Your task to perform on an android device: Search for hotels in Seattle Image 0: 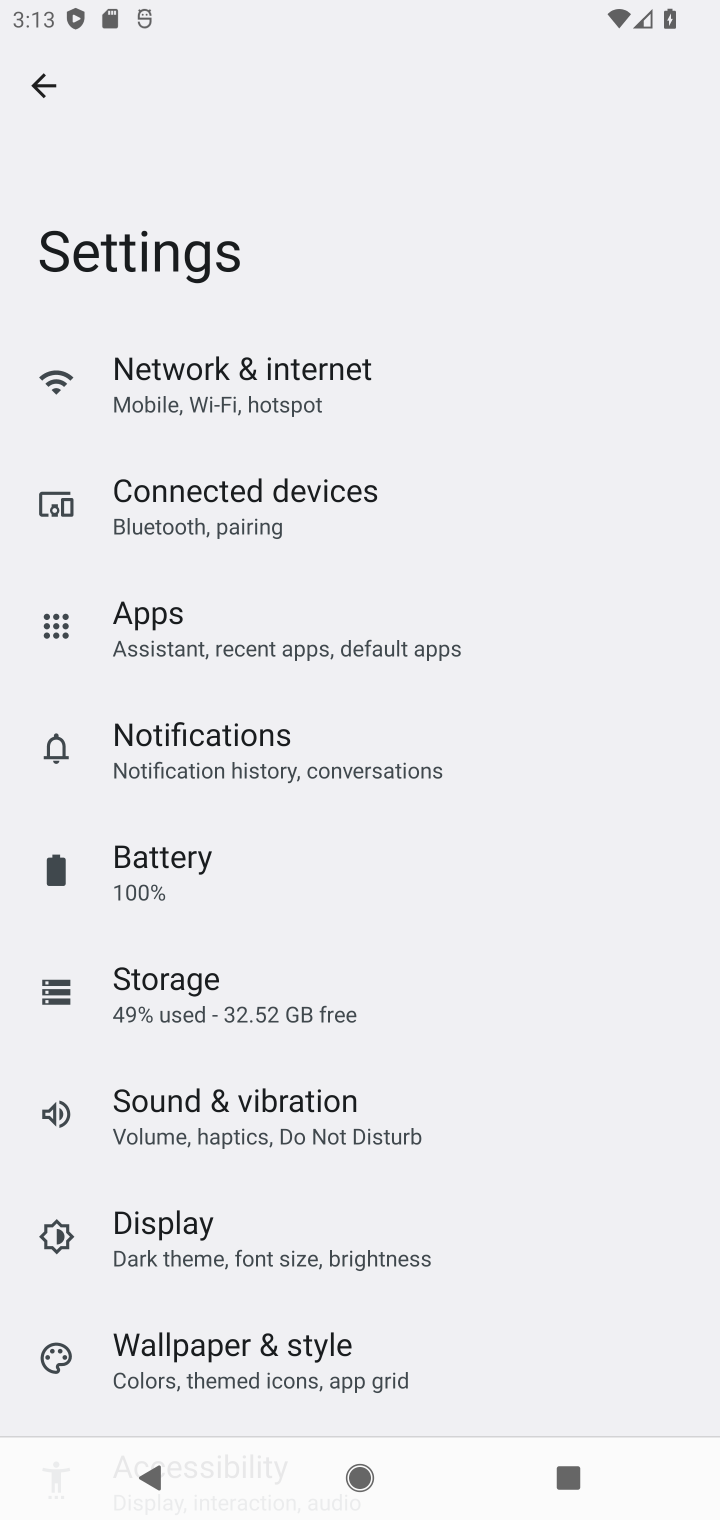
Step 0: press home button
Your task to perform on an android device: Search for hotels in Seattle Image 1: 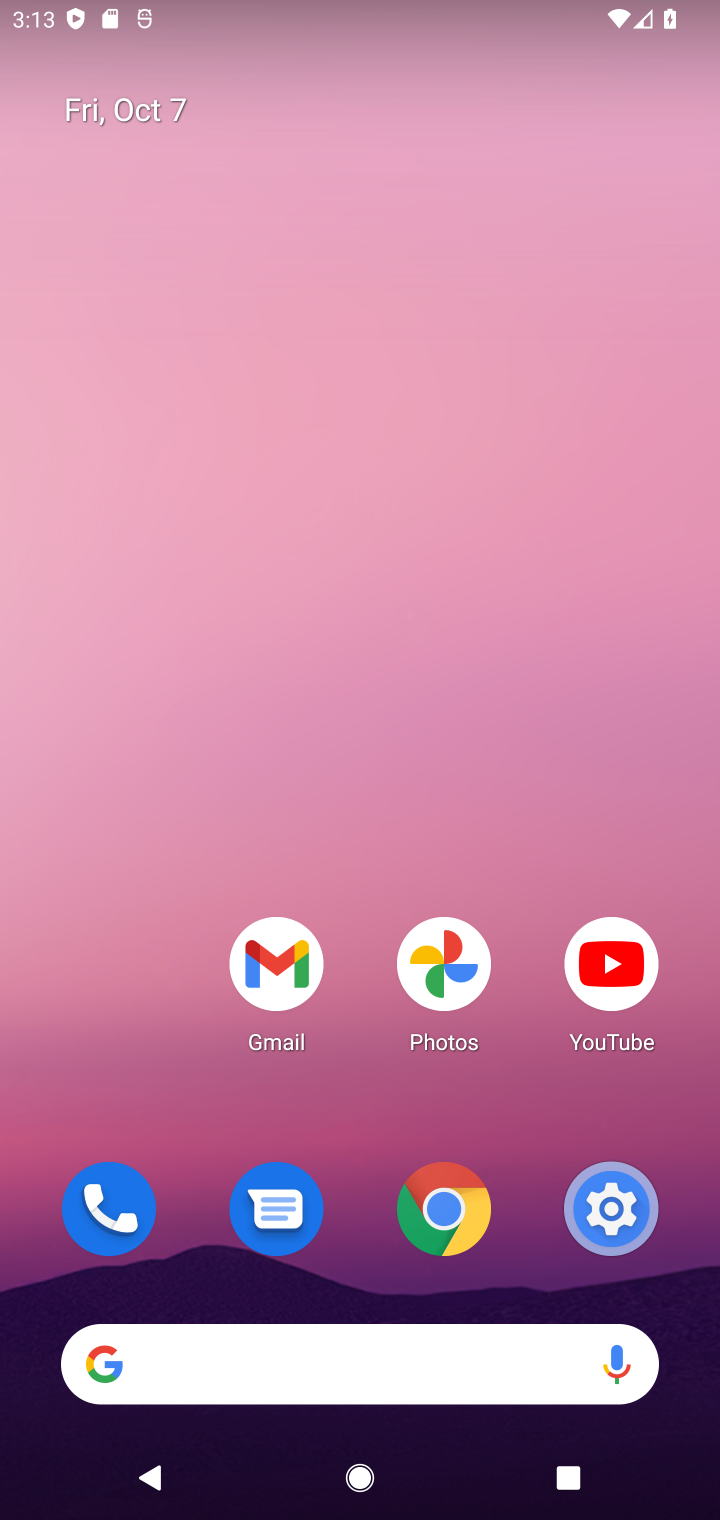
Step 1: click (473, 1362)
Your task to perform on an android device: Search for hotels in Seattle Image 2: 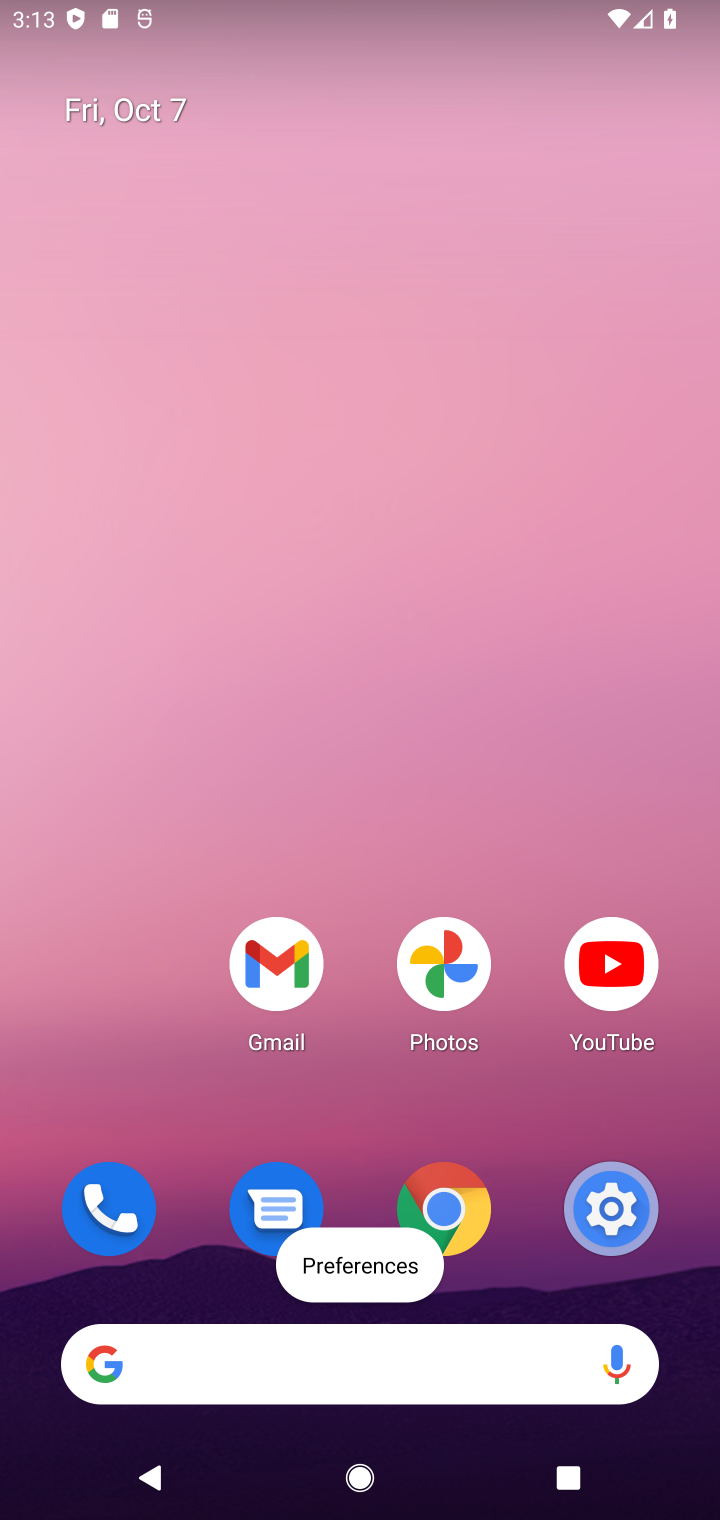
Step 2: click (265, 1343)
Your task to perform on an android device: Search for hotels in Seattle Image 3: 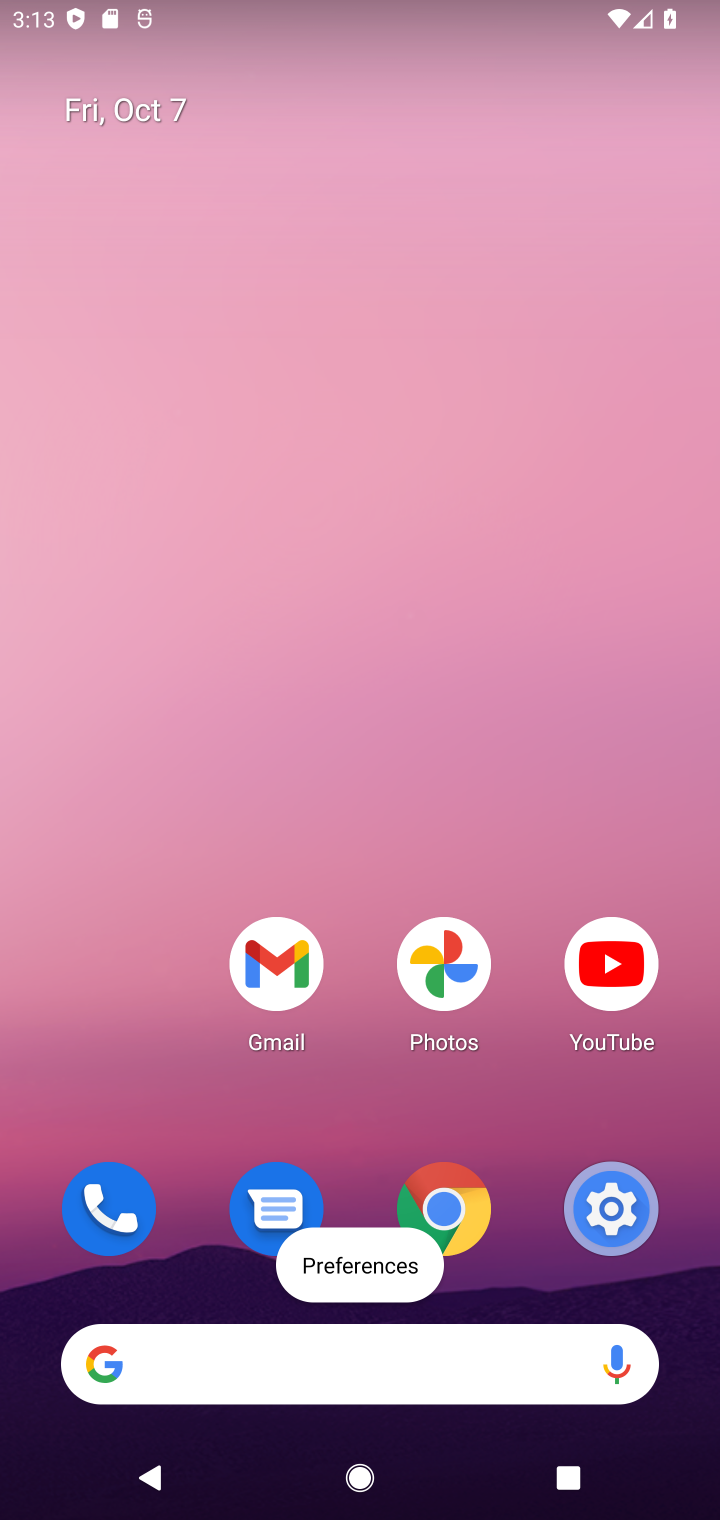
Step 3: click (201, 1372)
Your task to perform on an android device: Search for hotels in Seattle Image 4: 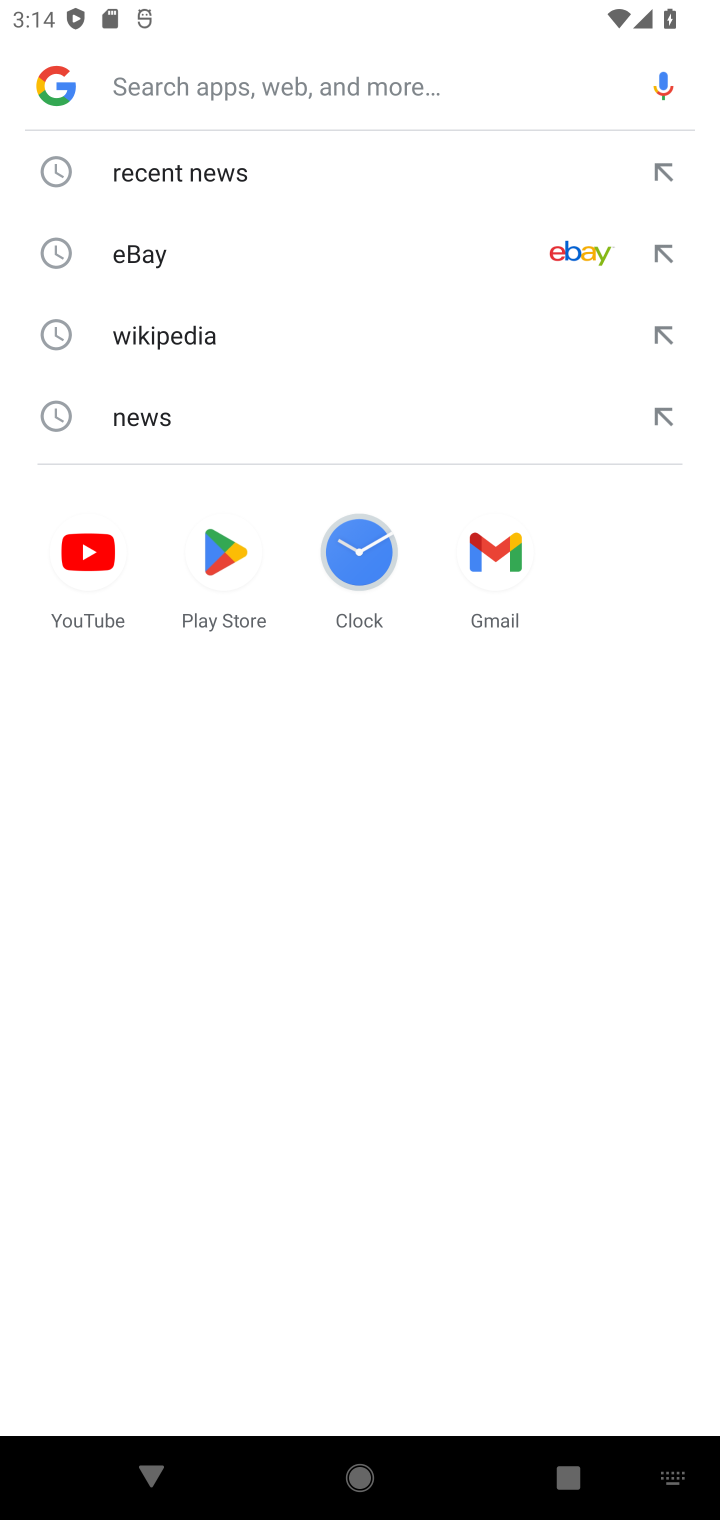
Step 4: type "hotels in seattle"
Your task to perform on an android device: Search for hotels in Seattle Image 5: 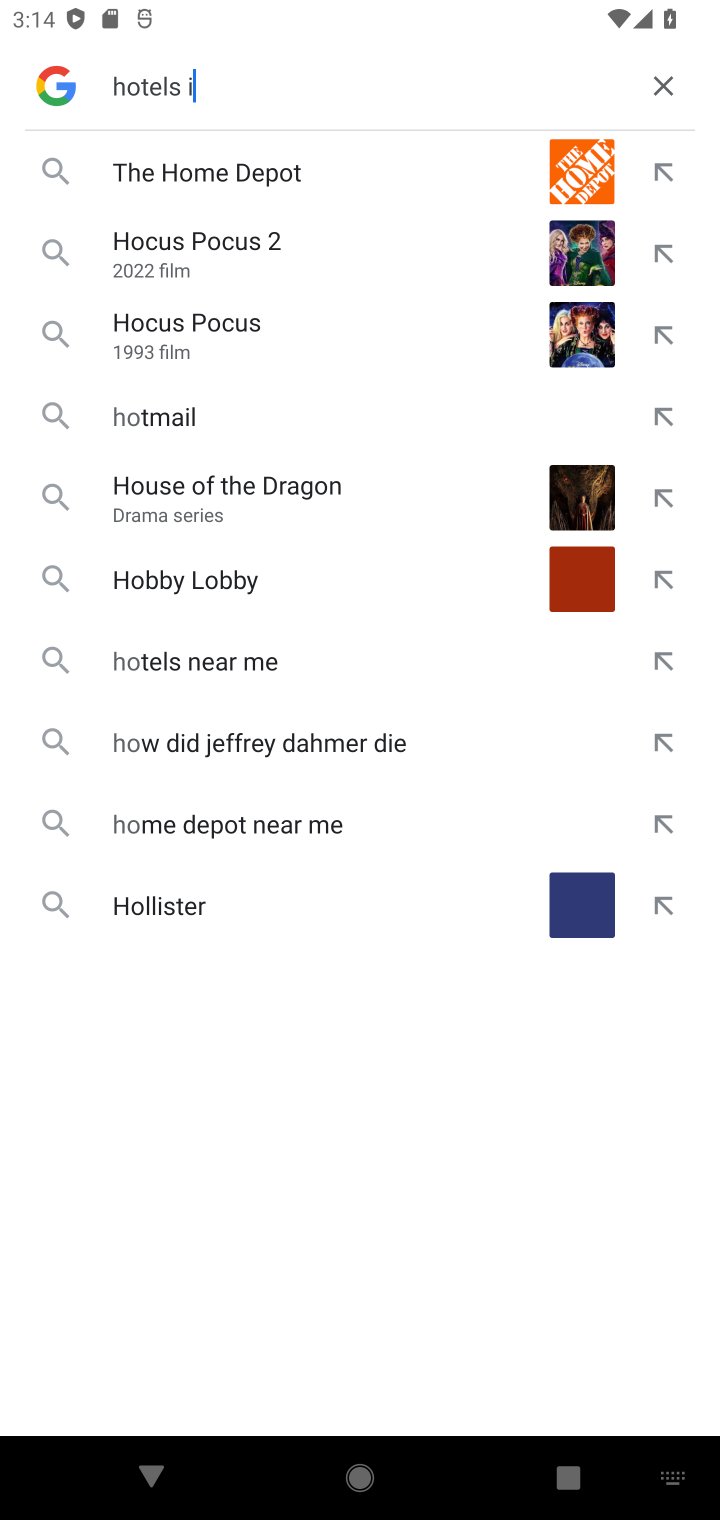
Step 5: press enter
Your task to perform on an android device: Search for hotels in Seattle Image 6: 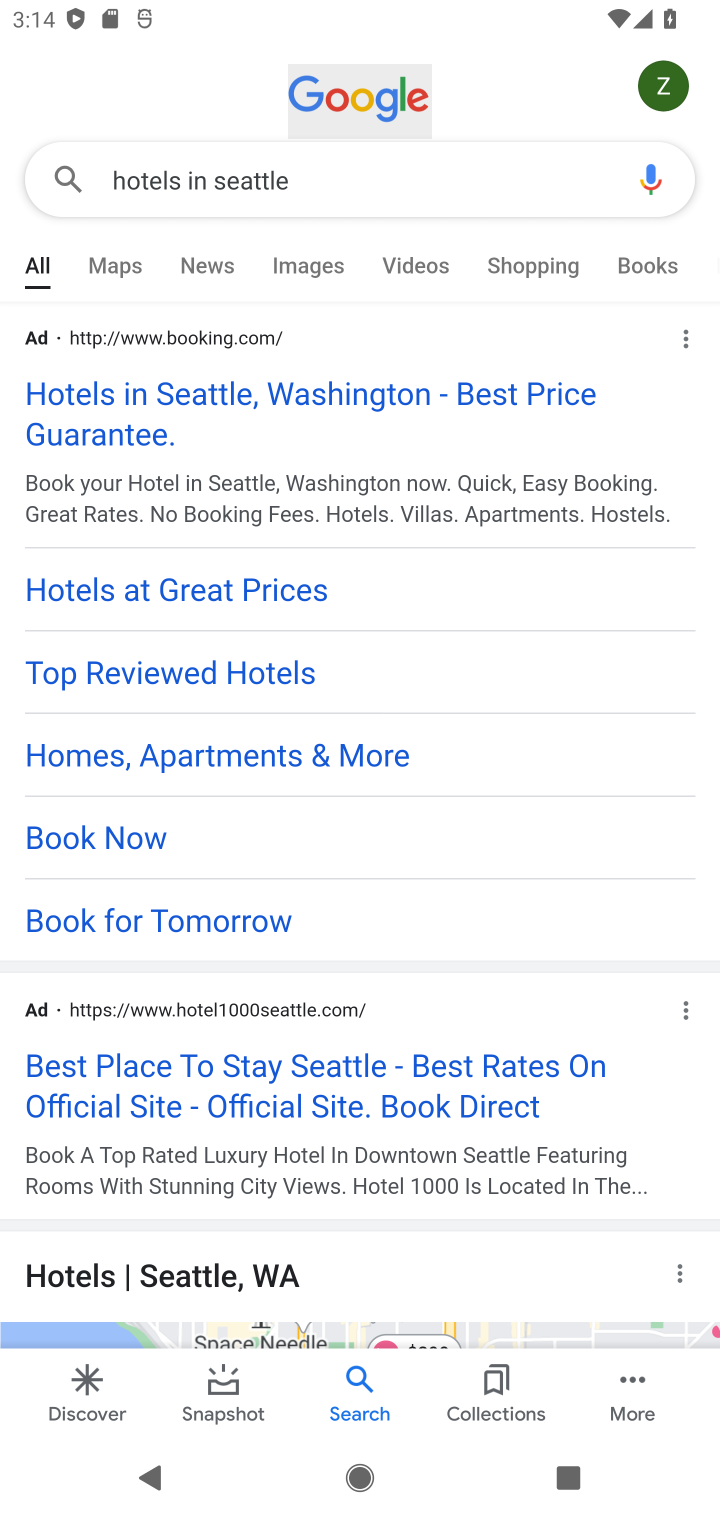
Step 6: drag from (453, 1207) to (463, 885)
Your task to perform on an android device: Search for hotels in Seattle Image 7: 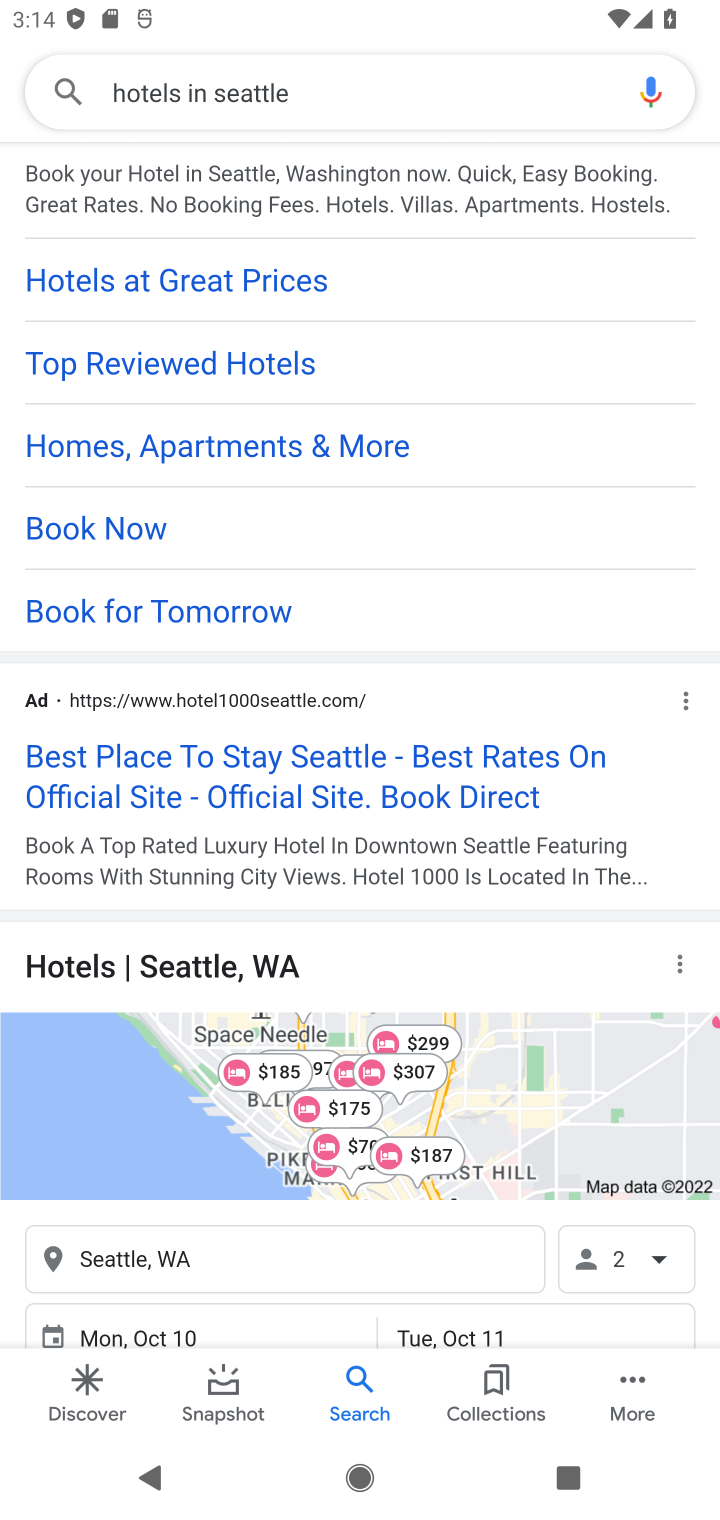
Step 7: click (418, 1036)
Your task to perform on an android device: Search for hotels in Seattle Image 8: 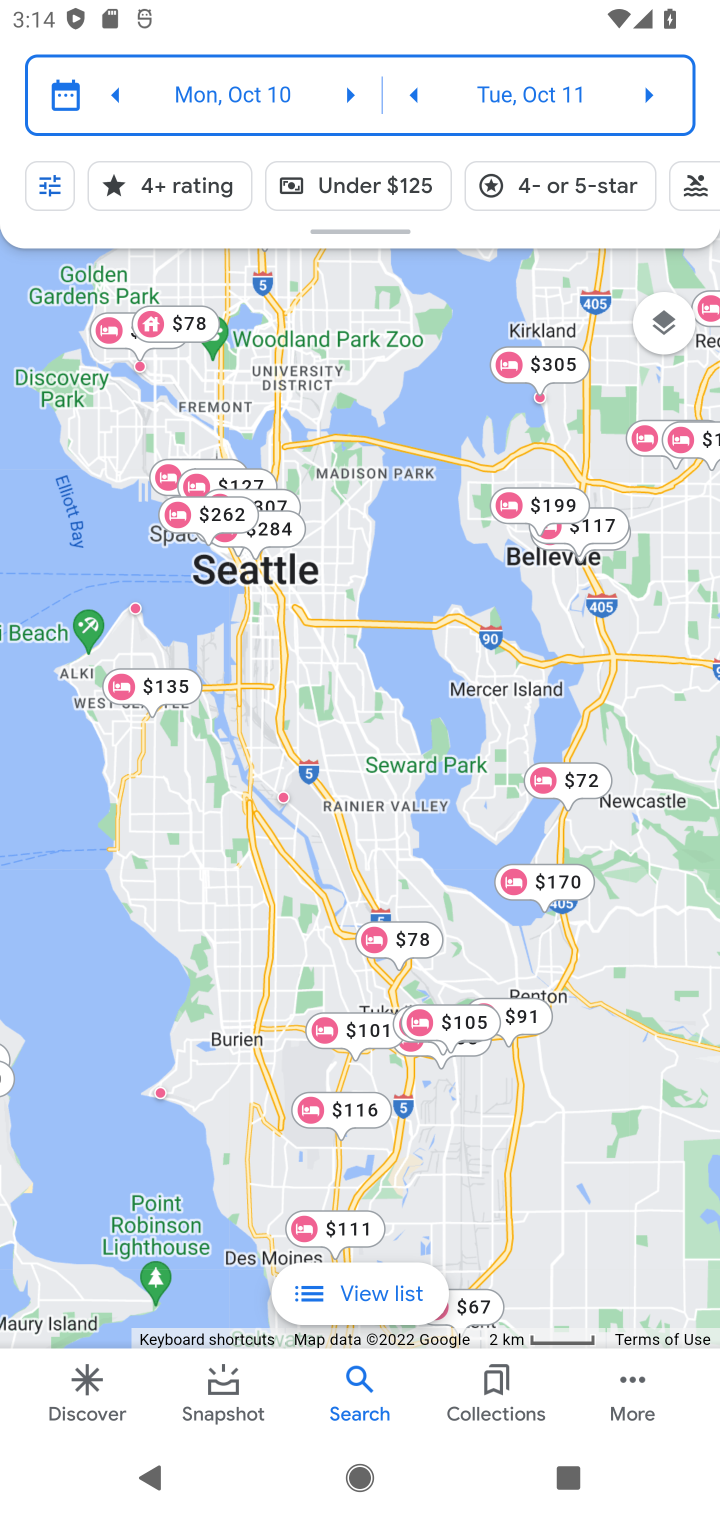
Step 8: task complete